Your task to perform on an android device: turn on data saver in the chrome app Image 0: 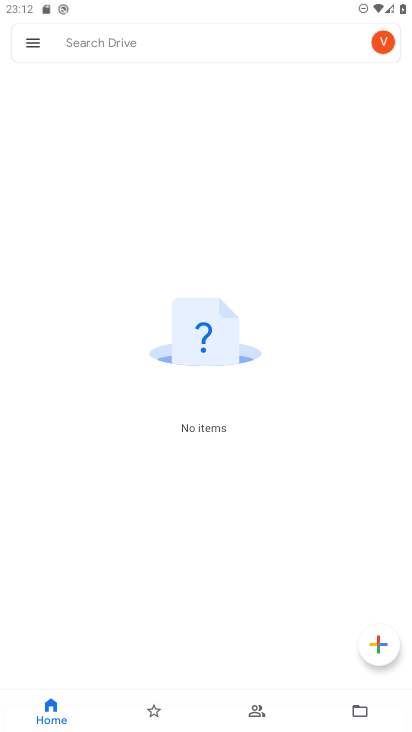
Step 0: press home button
Your task to perform on an android device: turn on data saver in the chrome app Image 1: 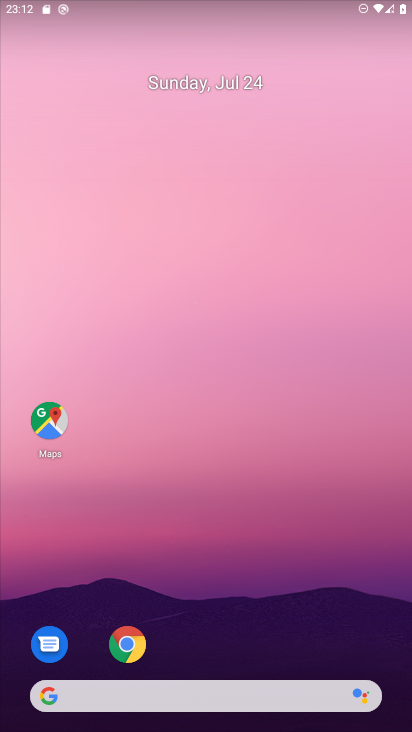
Step 1: click (129, 642)
Your task to perform on an android device: turn on data saver in the chrome app Image 2: 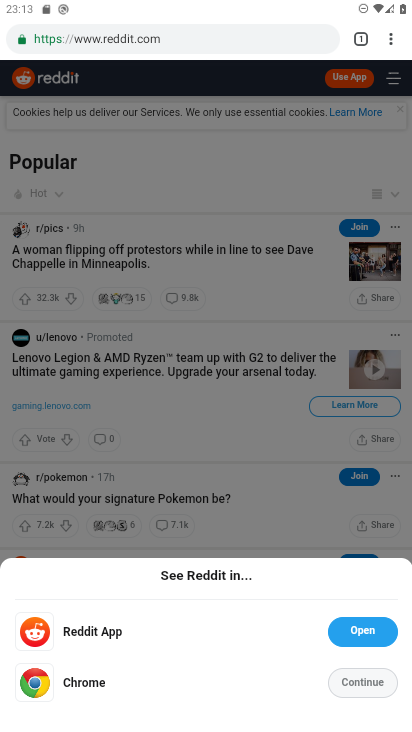
Step 2: click (390, 45)
Your task to perform on an android device: turn on data saver in the chrome app Image 3: 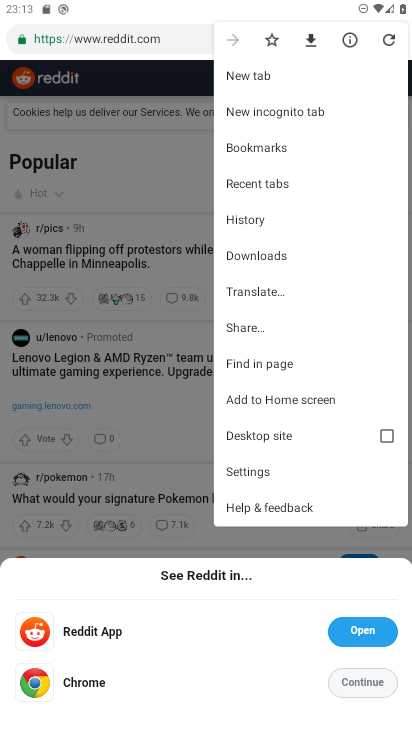
Step 3: click (254, 469)
Your task to perform on an android device: turn on data saver in the chrome app Image 4: 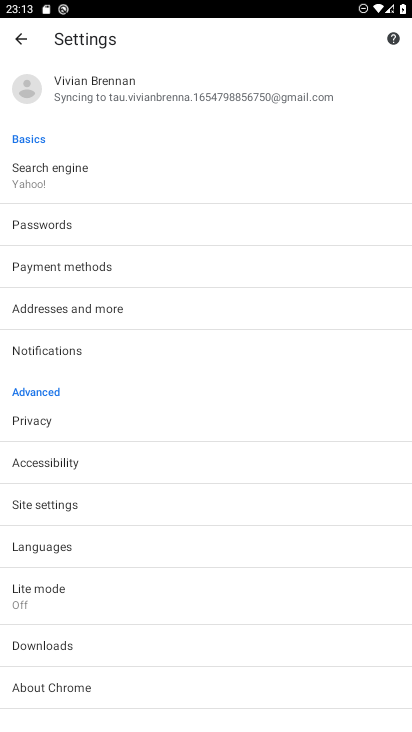
Step 4: click (25, 584)
Your task to perform on an android device: turn on data saver in the chrome app Image 5: 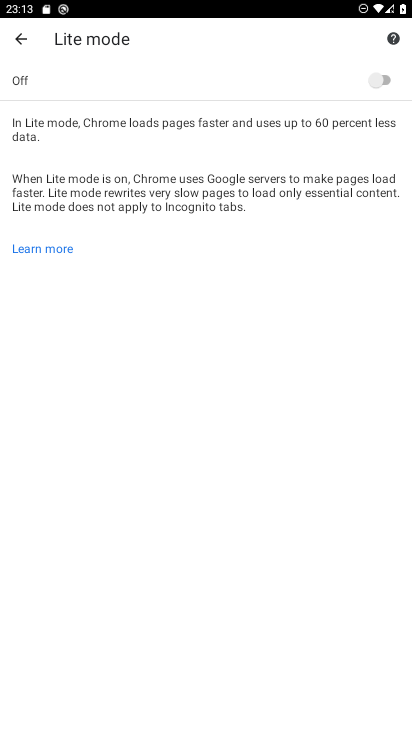
Step 5: click (387, 76)
Your task to perform on an android device: turn on data saver in the chrome app Image 6: 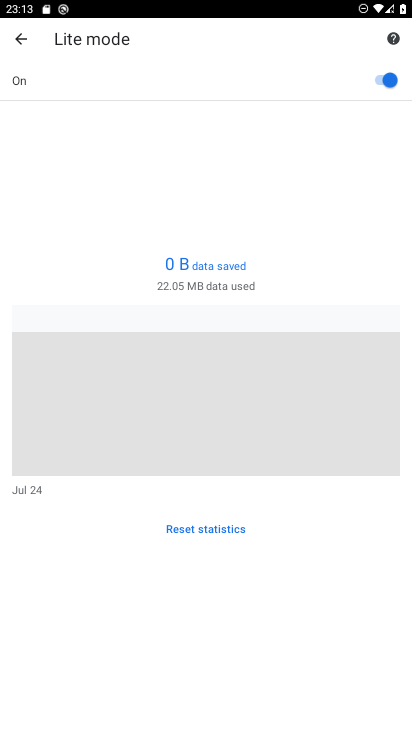
Step 6: task complete